Your task to perform on an android device: turn on translation in the chrome app Image 0: 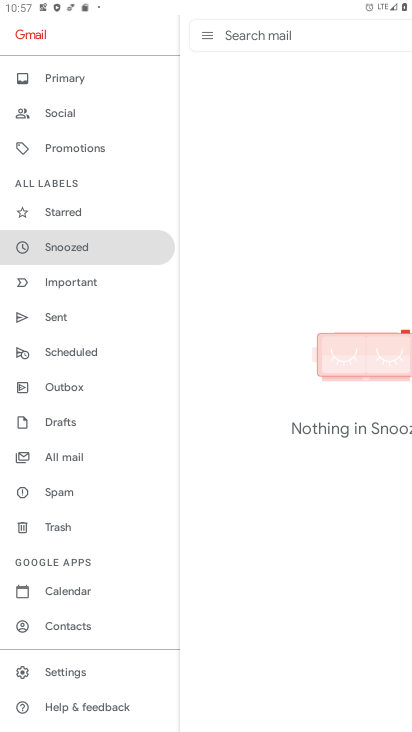
Step 0: press home button
Your task to perform on an android device: turn on translation in the chrome app Image 1: 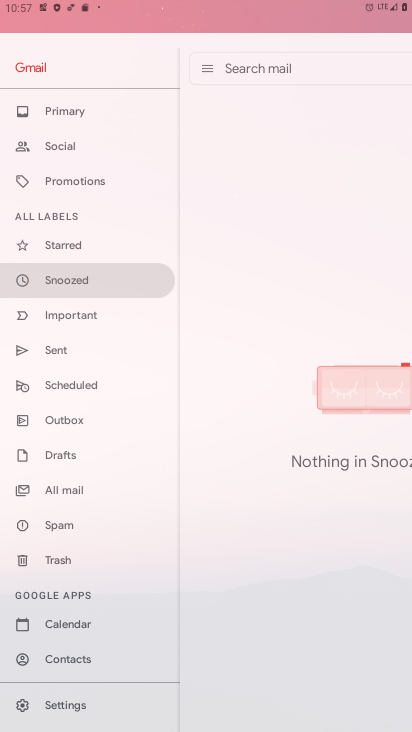
Step 1: drag from (206, 628) to (366, 4)
Your task to perform on an android device: turn on translation in the chrome app Image 2: 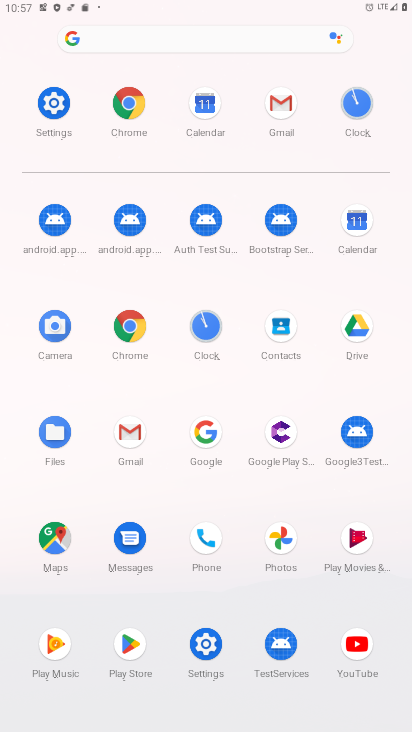
Step 2: click (125, 320)
Your task to perform on an android device: turn on translation in the chrome app Image 3: 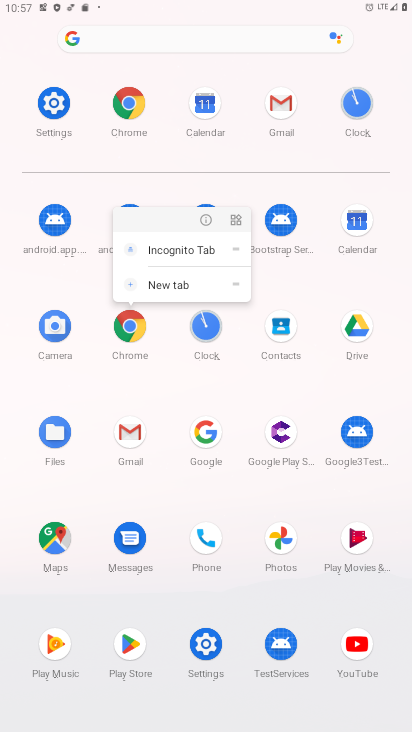
Step 3: click (210, 219)
Your task to perform on an android device: turn on translation in the chrome app Image 4: 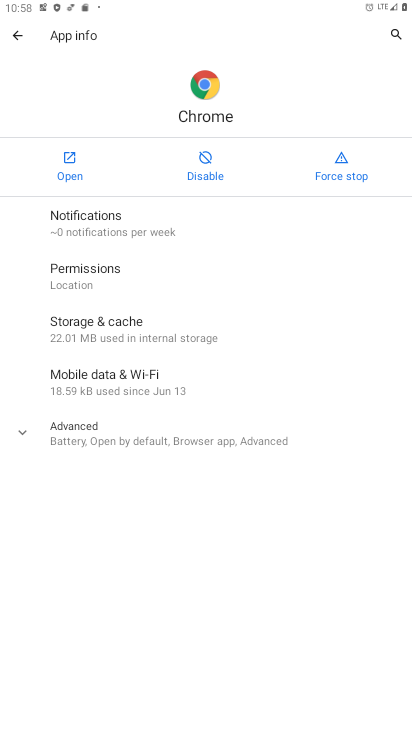
Step 4: click (73, 156)
Your task to perform on an android device: turn on translation in the chrome app Image 5: 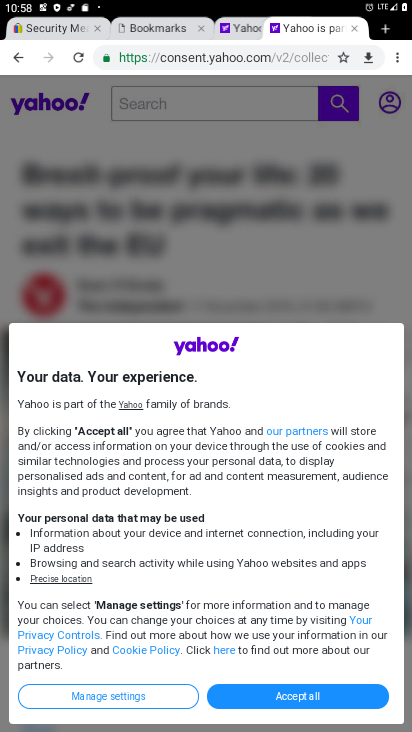
Step 5: click (397, 47)
Your task to perform on an android device: turn on translation in the chrome app Image 6: 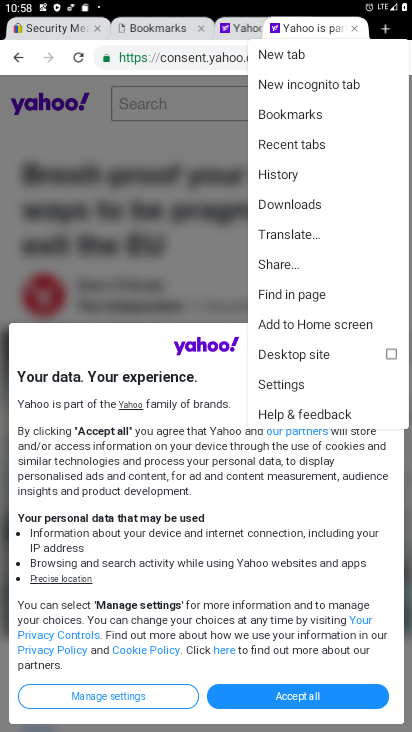
Step 6: click (297, 377)
Your task to perform on an android device: turn on translation in the chrome app Image 7: 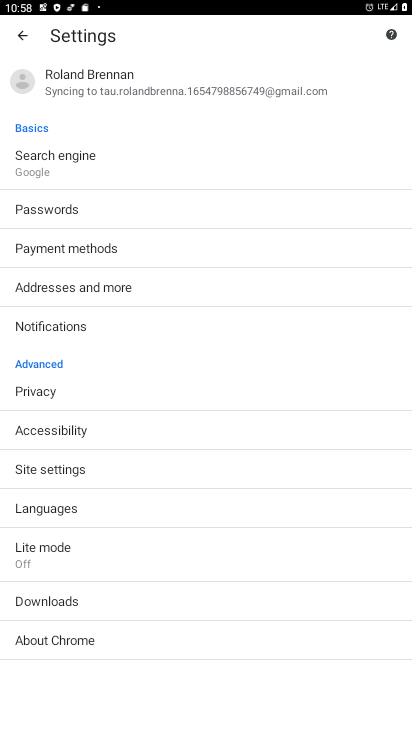
Step 7: click (65, 520)
Your task to perform on an android device: turn on translation in the chrome app Image 8: 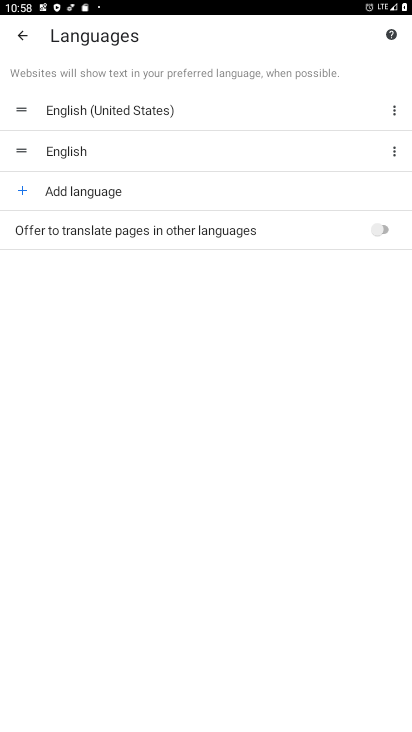
Step 8: click (386, 218)
Your task to perform on an android device: turn on translation in the chrome app Image 9: 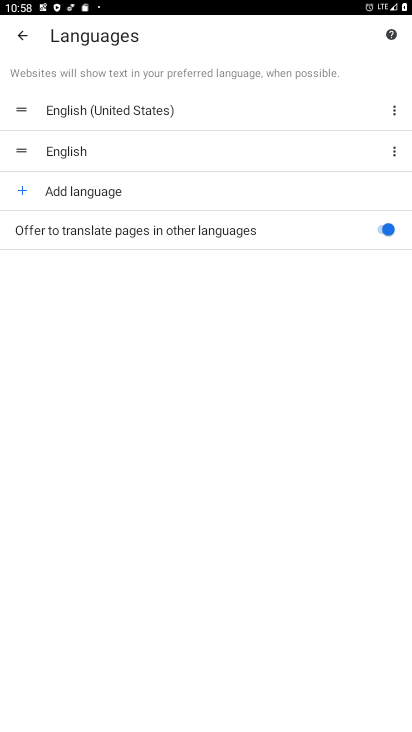
Step 9: task complete